Your task to perform on an android device: turn pop-ups on in chrome Image 0: 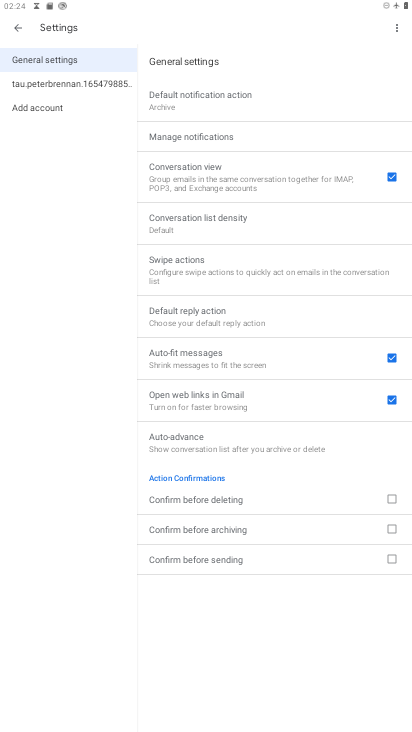
Step 0: press home button
Your task to perform on an android device: turn pop-ups on in chrome Image 1: 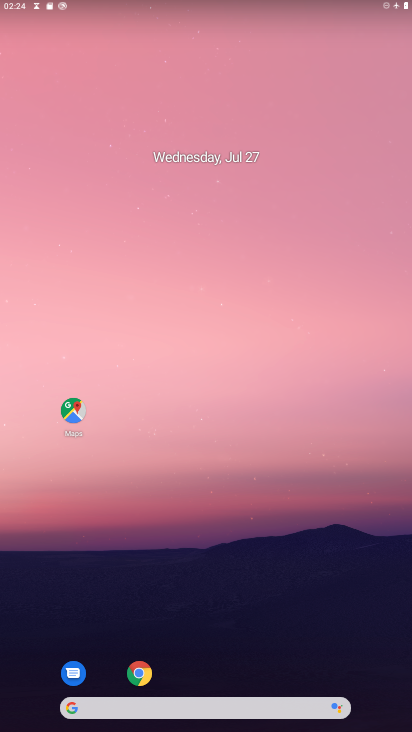
Step 1: drag from (215, 679) to (222, 193)
Your task to perform on an android device: turn pop-ups on in chrome Image 2: 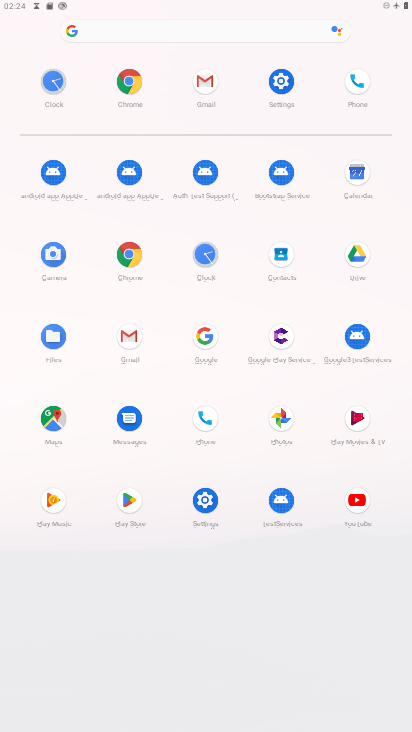
Step 2: click (137, 74)
Your task to perform on an android device: turn pop-ups on in chrome Image 3: 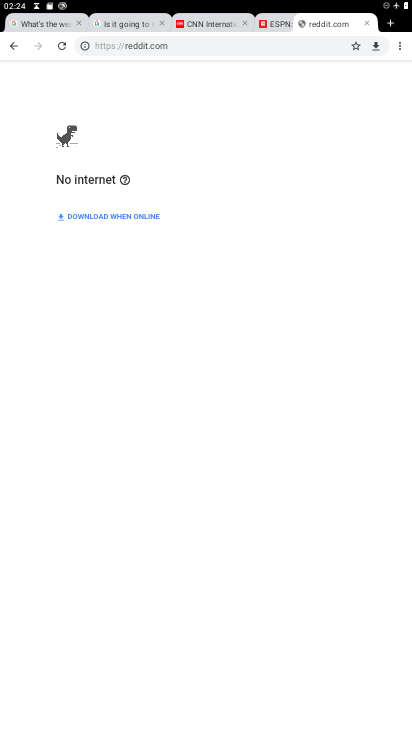
Step 3: click (403, 48)
Your task to perform on an android device: turn pop-ups on in chrome Image 4: 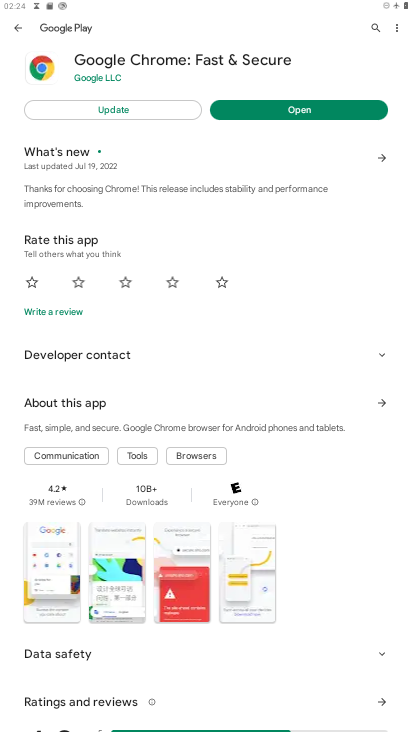
Step 4: click (9, 24)
Your task to perform on an android device: turn pop-ups on in chrome Image 5: 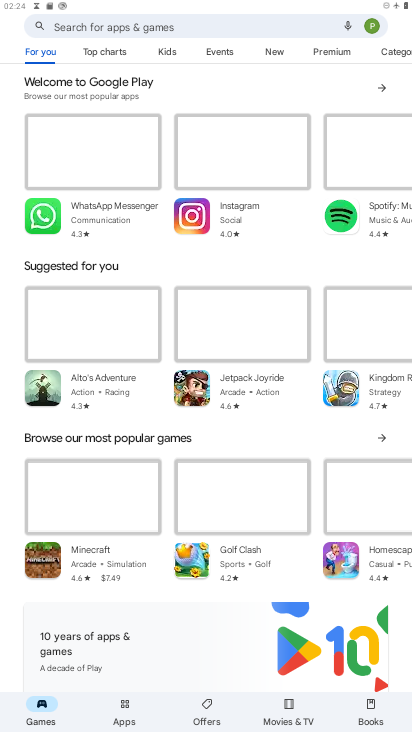
Step 5: press back button
Your task to perform on an android device: turn pop-ups on in chrome Image 6: 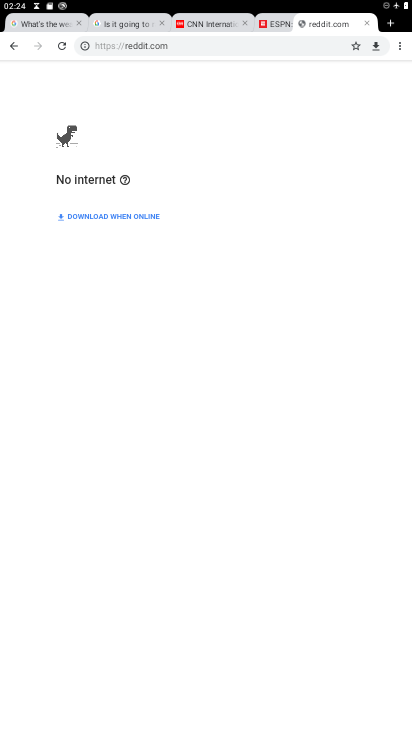
Step 6: click (399, 42)
Your task to perform on an android device: turn pop-ups on in chrome Image 7: 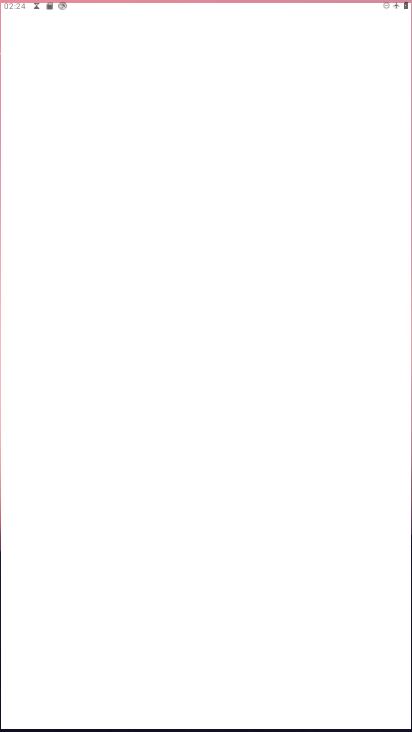
Step 7: click (399, 42)
Your task to perform on an android device: turn pop-ups on in chrome Image 8: 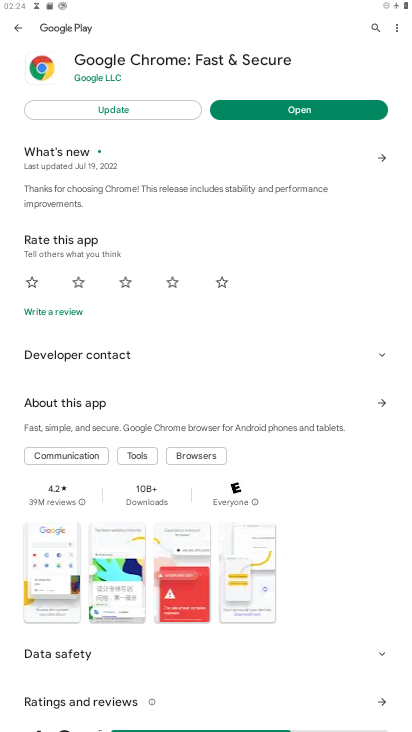
Step 8: press back button
Your task to perform on an android device: turn pop-ups on in chrome Image 9: 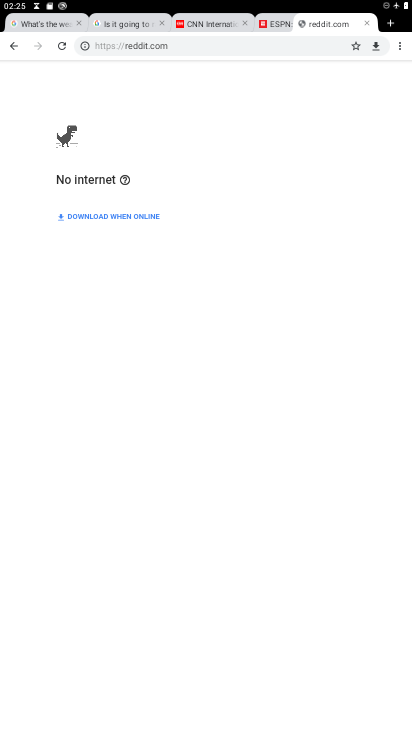
Step 9: click (402, 39)
Your task to perform on an android device: turn pop-ups on in chrome Image 10: 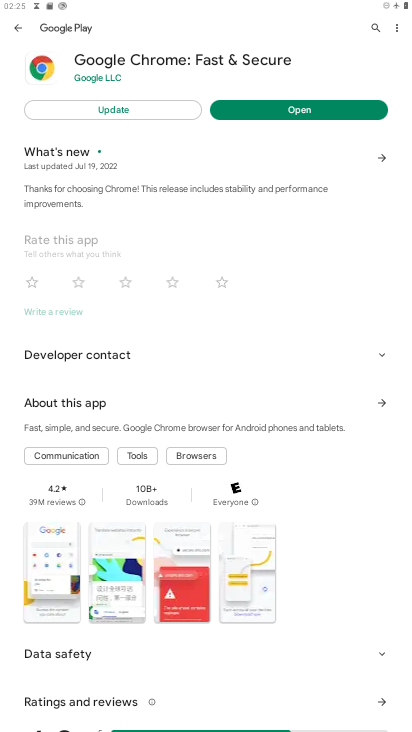
Step 10: press back button
Your task to perform on an android device: turn pop-ups on in chrome Image 11: 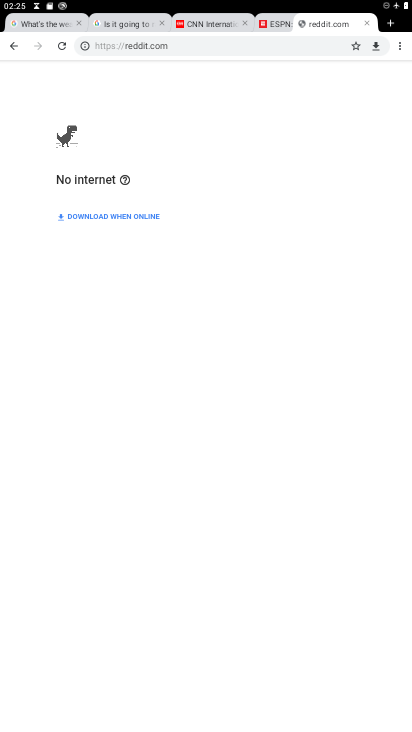
Step 11: click (405, 46)
Your task to perform on an android device: turn pop-ups on in chrome Image 12: 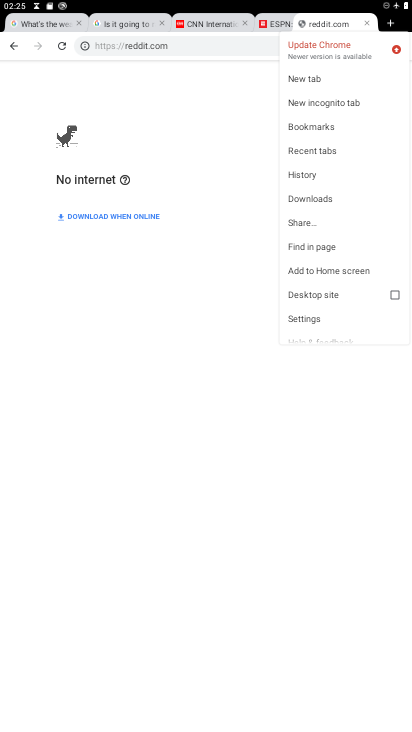
Step 12: click (311, 319)
Your task to perform on an android device: turn pop-ups on in chrome Image 13: 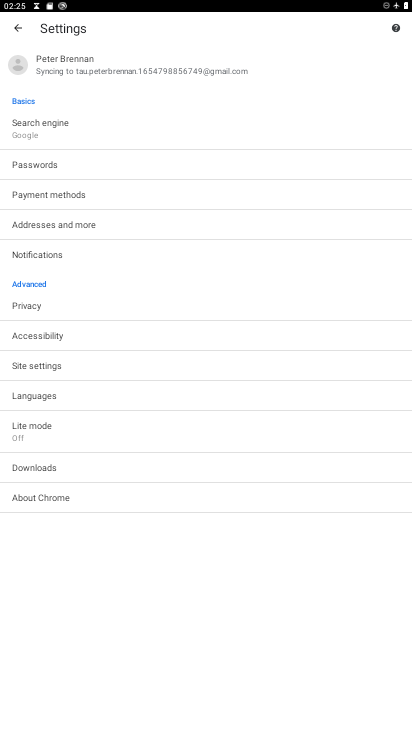
Step 13: click (53, 364)
Your task to perform on an android device: turn pop-ups on in chrome Image 14: 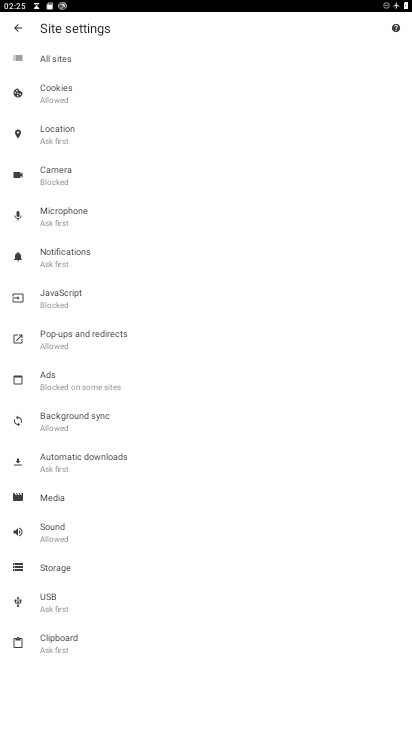
Step 14: click (99, 347)
Your task to perform on an android device: turn pop-ups on in chrome Image 15: 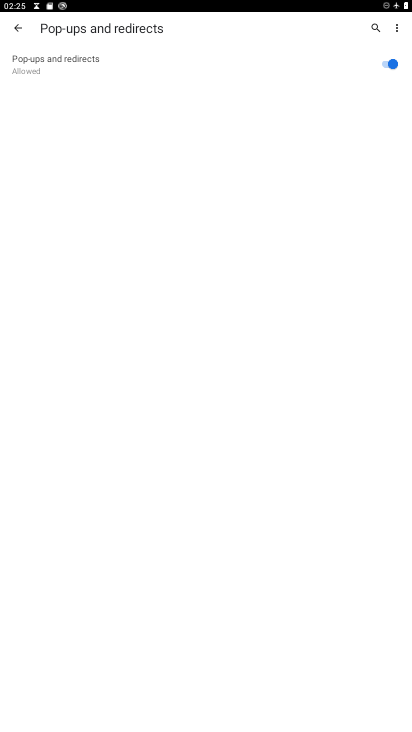
Step 15: task complete